Your task to perform on an android device: Open sound settings Image 0: 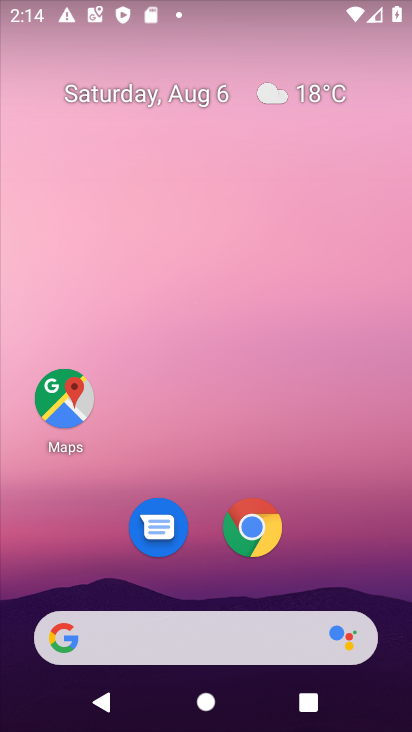
Step 0: drag from (220, 550) to (248, 78)
Your task to perform on an android device: Open sound settings Image 1: 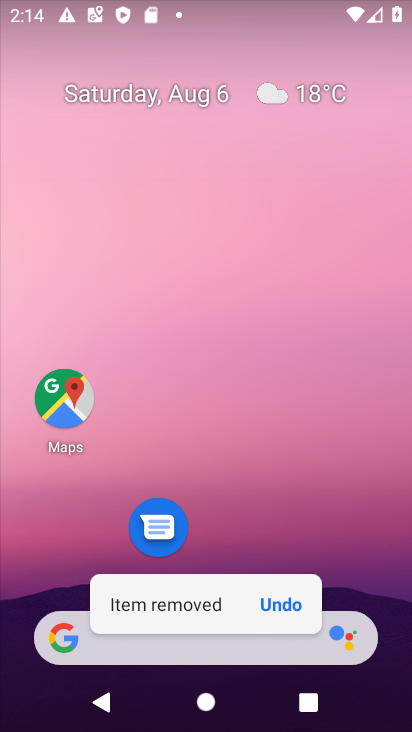
Step 1: drag from (248, 527) to (201, 62)
Your task to perform on an android device: Open sound settings Image 2: 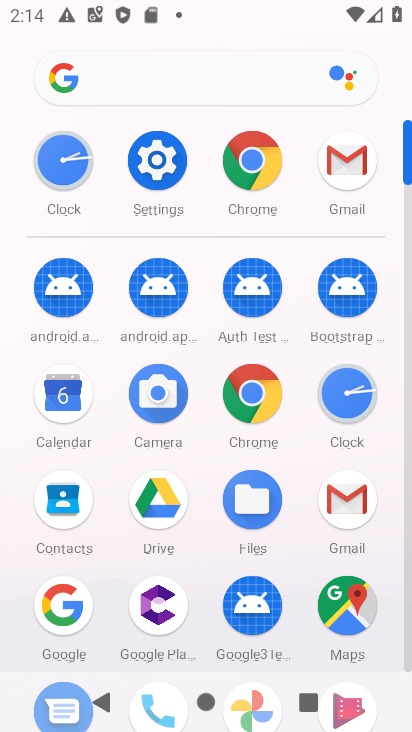
Step 2: drag from (209, 241) to (189, 35)
Your task to perform on an android device: Open sound settings Image 3: 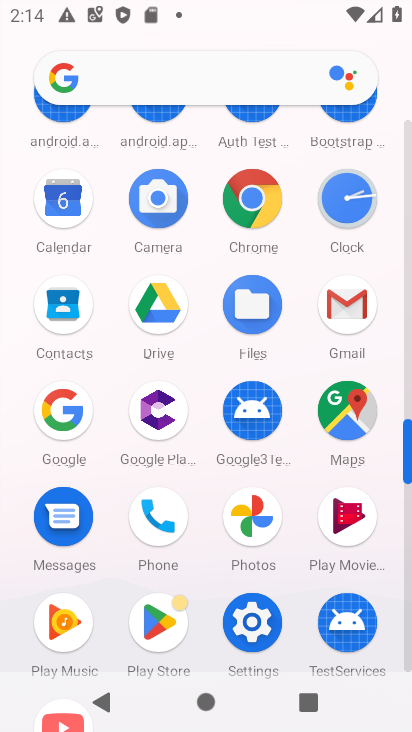
Step 3: click (271, 616)
Your task to perform on an android device: Open sound settings Image 4: 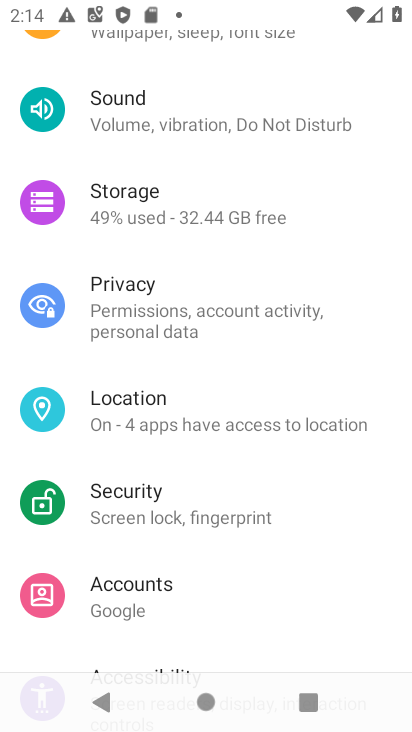
Step 4: click (179, 128)
Your task to perform on an android device: Open sound settings Image 5: 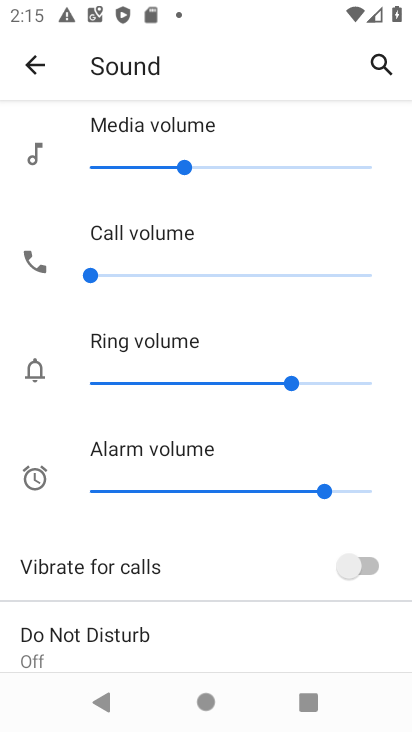
Step 5: task complete